Your task to perform on an android device: toggle airplane mode Image 0: 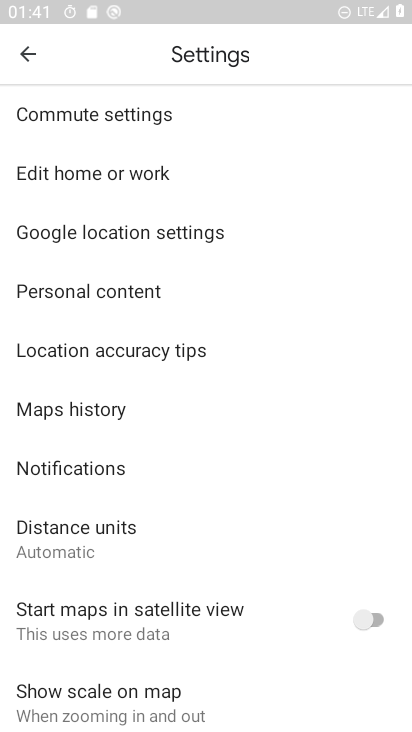
Step 0: press home button
Your task to perform on an android device: toggle airplane mode Image 1: 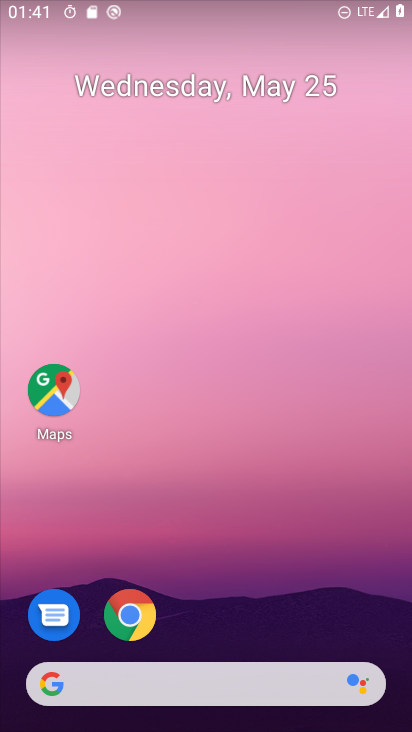
Step 1: drag from (294, 669) to (259, 63)
Your task to perform on an android device: toggle airplane mode Image 2: 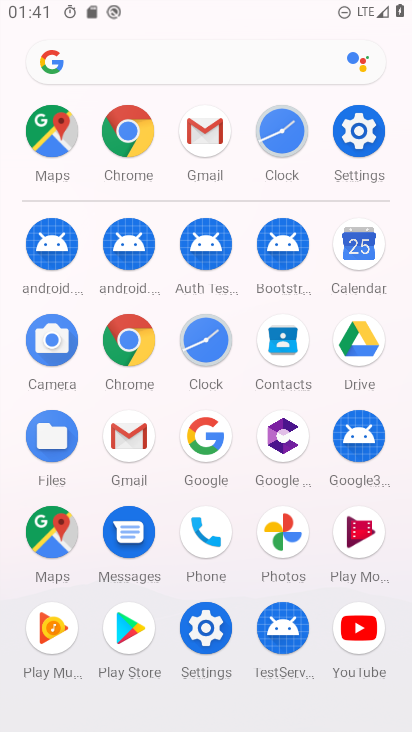
Step 2: click (354, 125)
Your task to perform on an android device: toggle airplane mode Image 3: 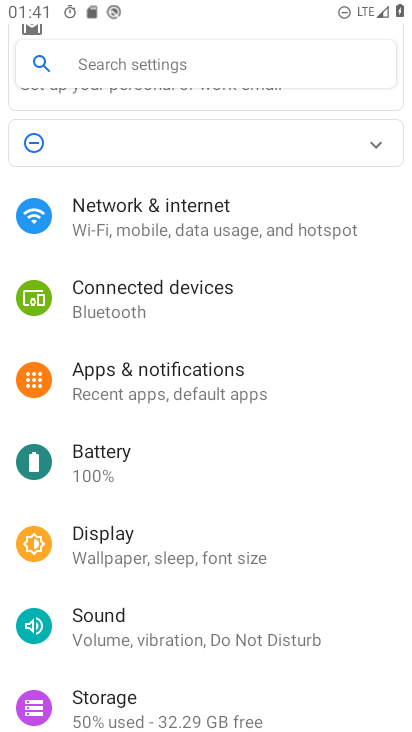
Step 3: click (134, 237)
Your task to perform on an android device: toggle airplane mode Image 4: 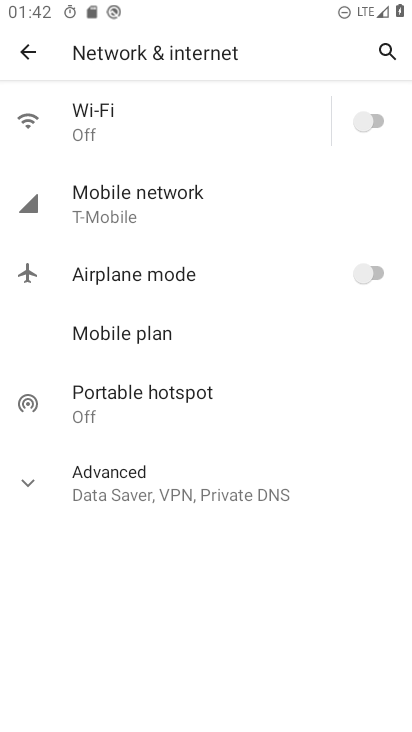
Step 4: click (362, 263)
Your task to perform on an android device: toggle airplane mode Image 5: 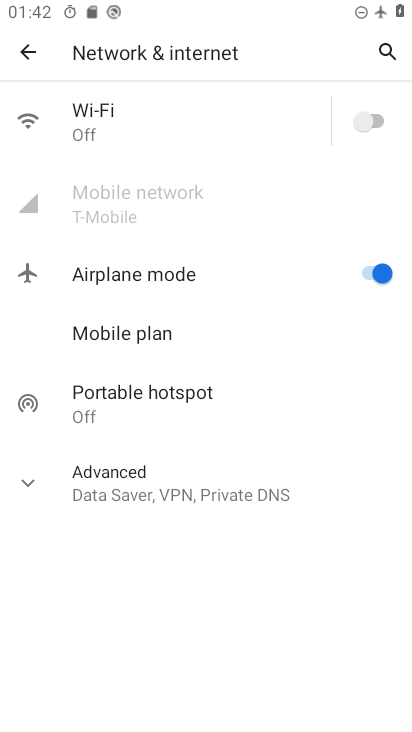
Step 5: task complete